Your task to perform on an android device: open app "Roku - Official Remote Control" (install if not already installed) Image 0: 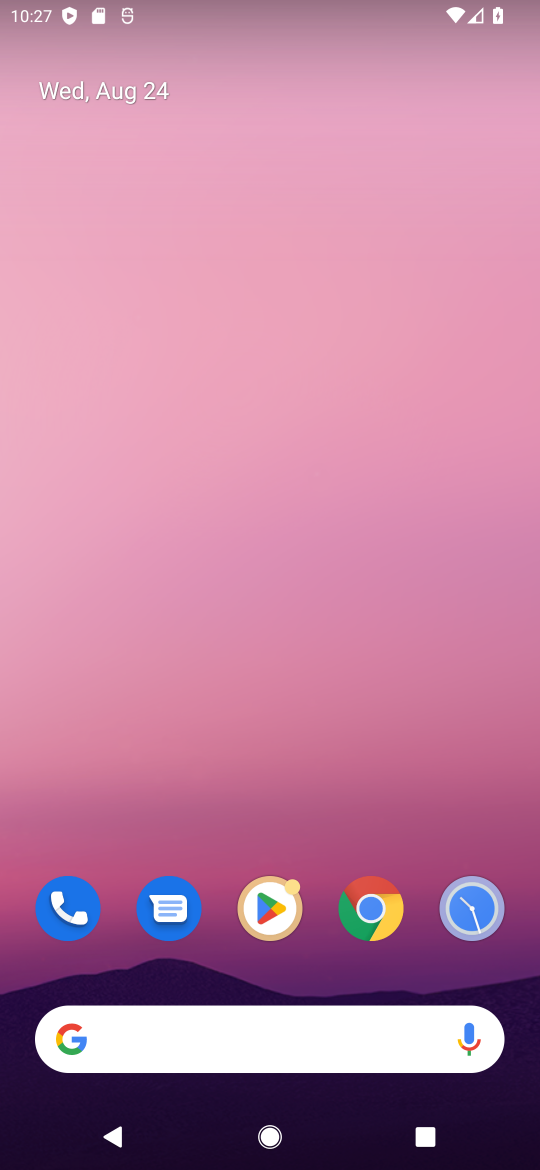
Step 0: click (263, 895)
Your task to perform on an android device: open app "Roku - Official Remote Control" (install if not already installed) Image 1: 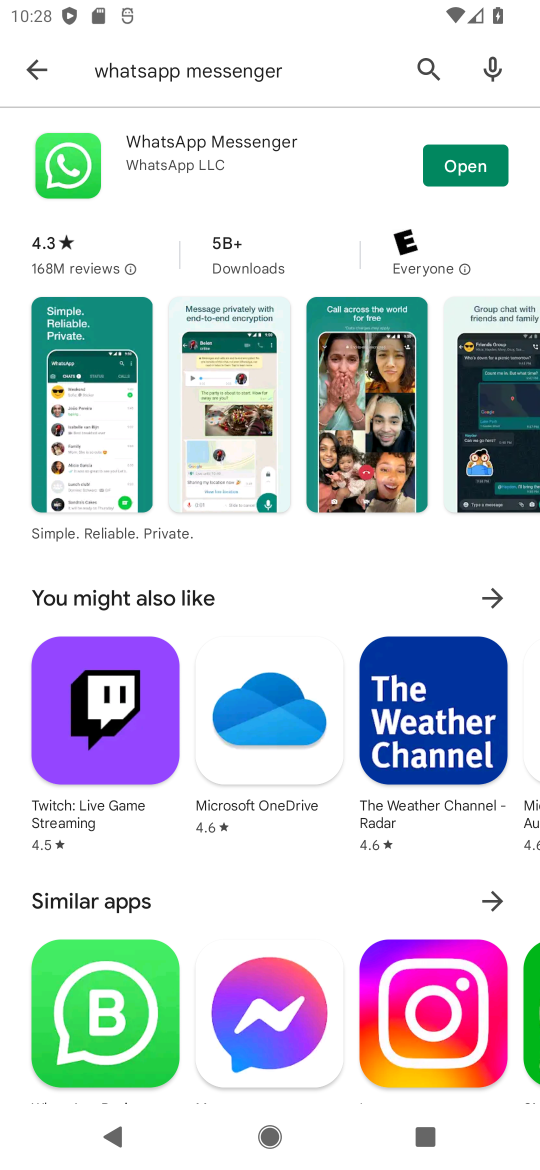
Step 1: click (296, 895)
Your task to perform on an android device: open app "Roku - Official Remote Control" (install if not already installed) Image 2: 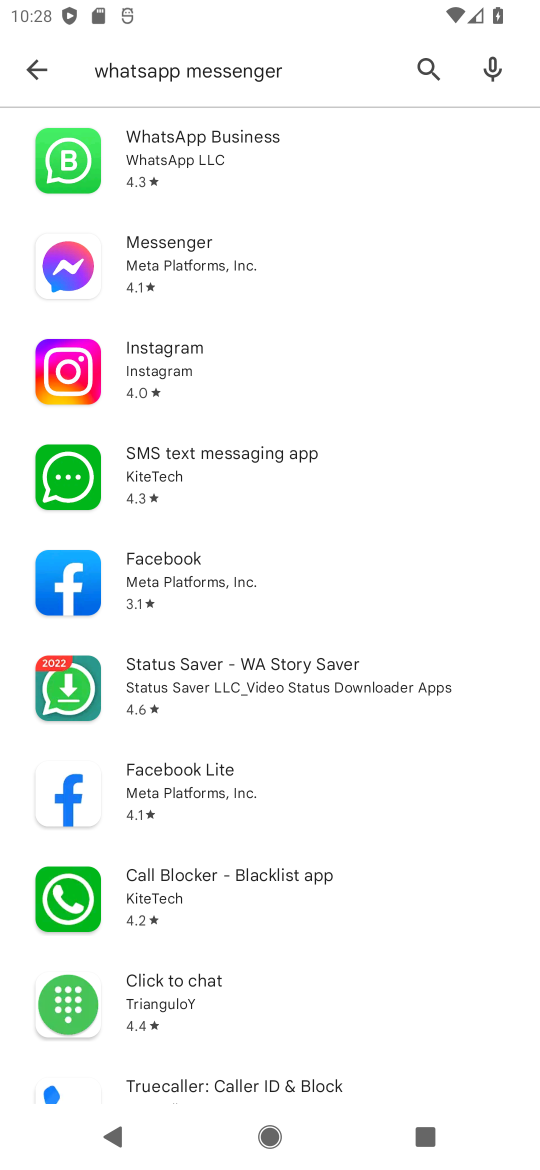
Step 2: click (23, 57)
Your task to perform on an android device: open app "Roku - Official Remote Control" (install if not already installed) Image 3: 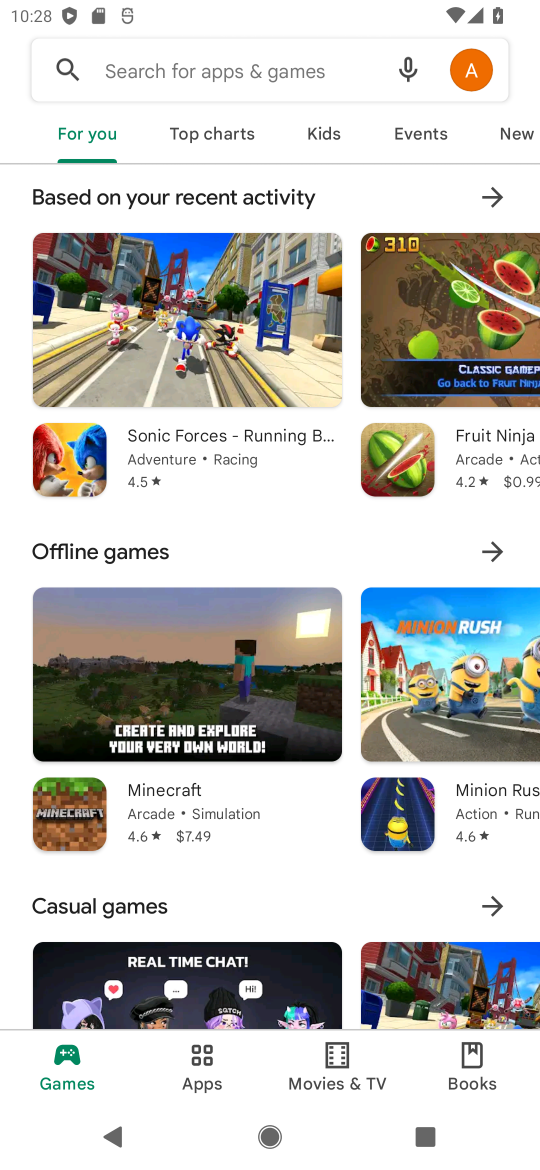
Step 3: click (212, 59)
Your task to perform on an android device: open app "Roku - Official Remote Control" (install if not already installed) Image 4: 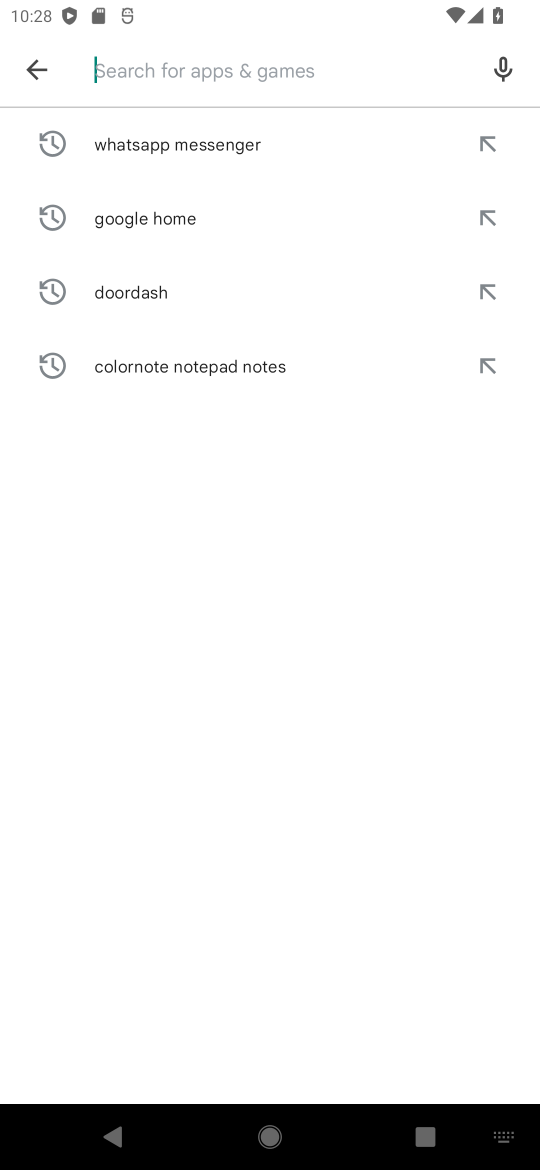
Step 4: click (44, 1167)
Your task to perform on an android device: open app "Roku - Official Remote Control" (install if not already installed) Image 5: 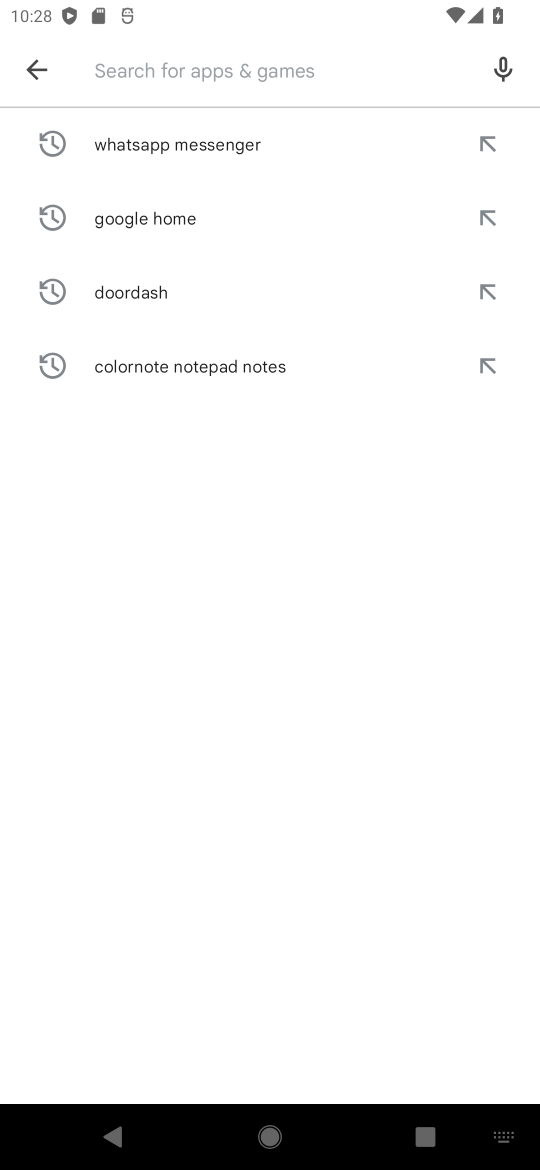
Step 5: type "Roku"
Your task to perform on an android device: open app "Roku - Official Remote Control" (install if not already installed) Image 6: 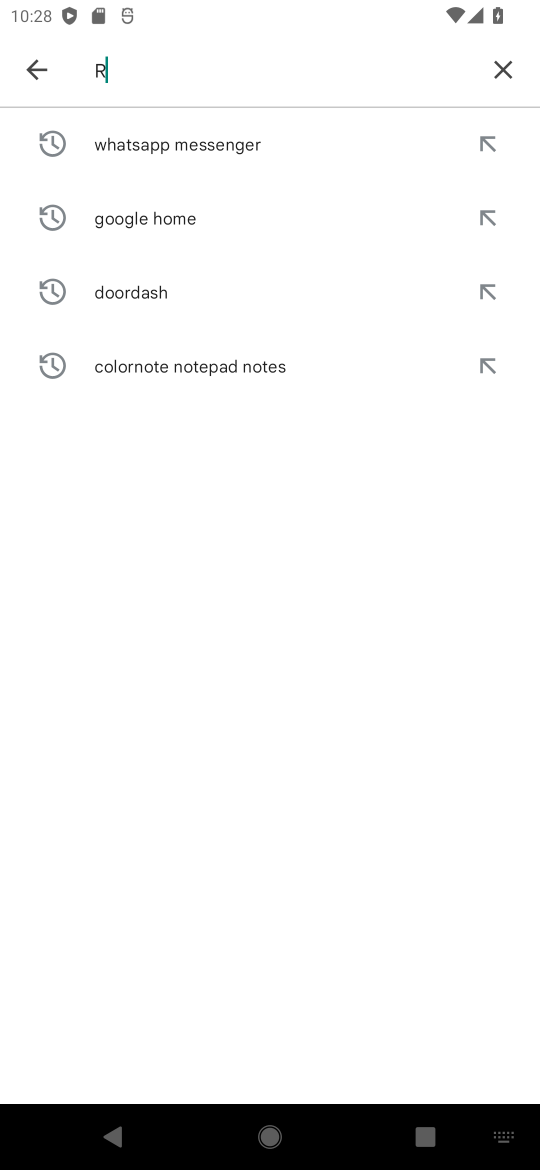
Step 6: drag from (44, 1167) to (514, 555)
Your task to perform on an android device: open app "Roku - Official Remote Control" (install if not already installed) Image 7: 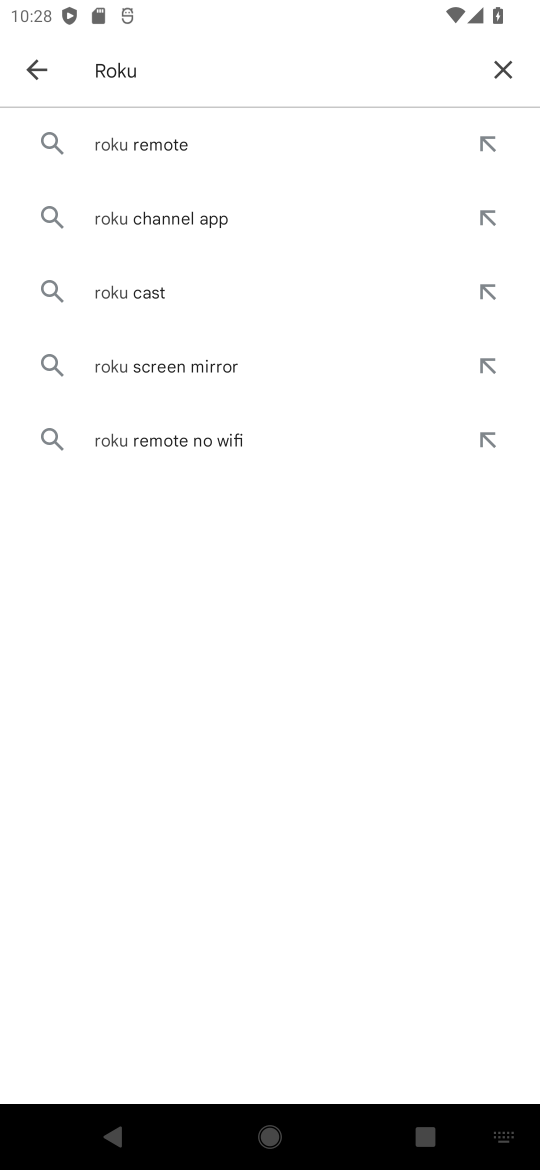
Step 7: click (134, 161)
Your task to perform on an android device: open app "Roku - Official Remote Control" (install if not already installed) Image 8: 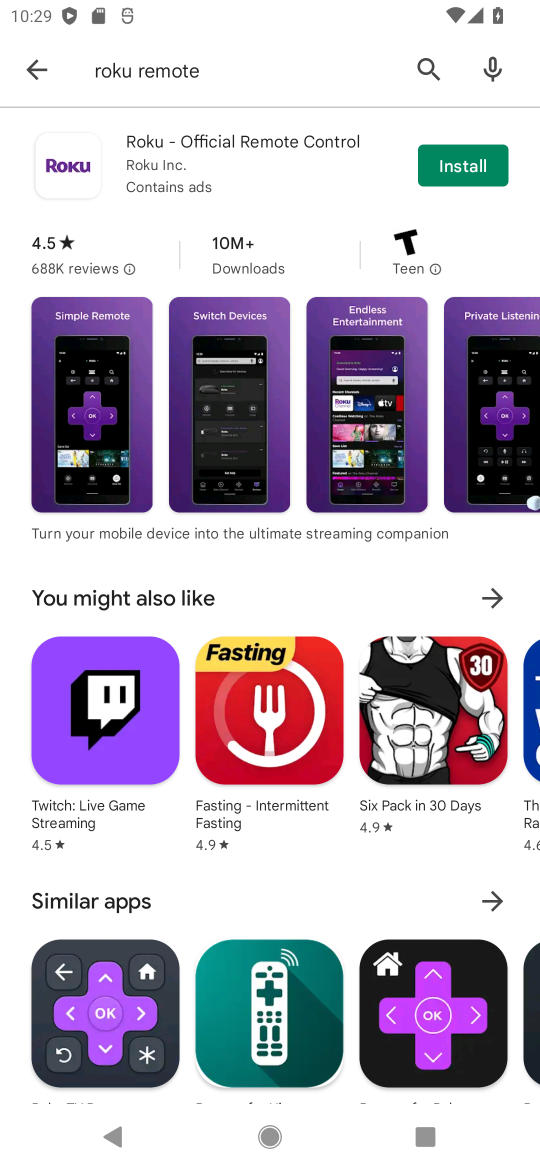
Step 8: click (453, 181)
Your task to perform on an android device: open app "Roku - Official Remote Control" (install if not already installed) Image 9: 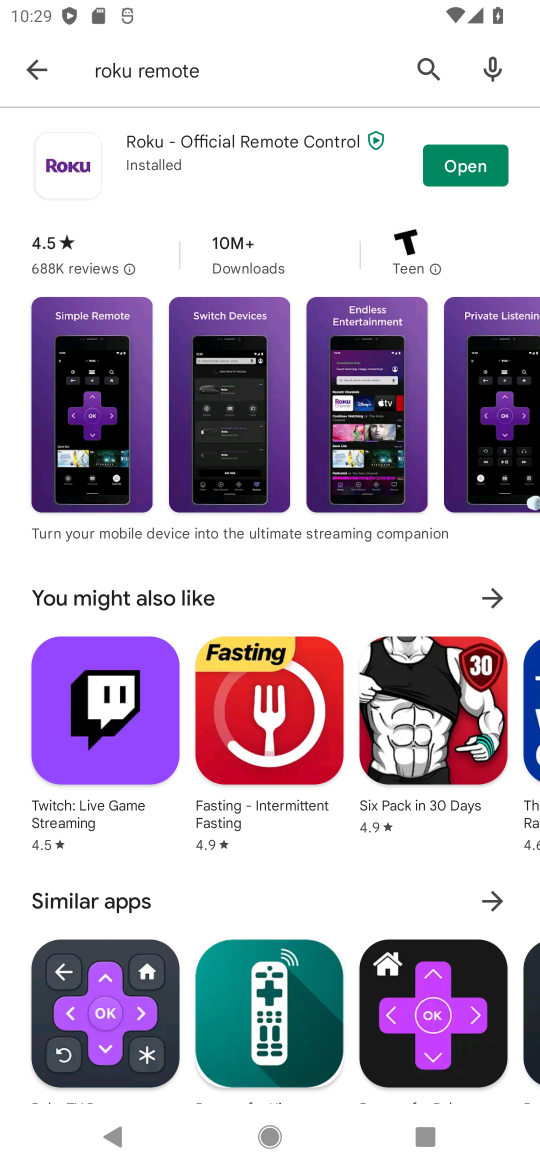
Step 9: click (483, 158)
Your task to perform on an android device: open app "Roku - Official Remote Control" (install if not already installed) Image 10: 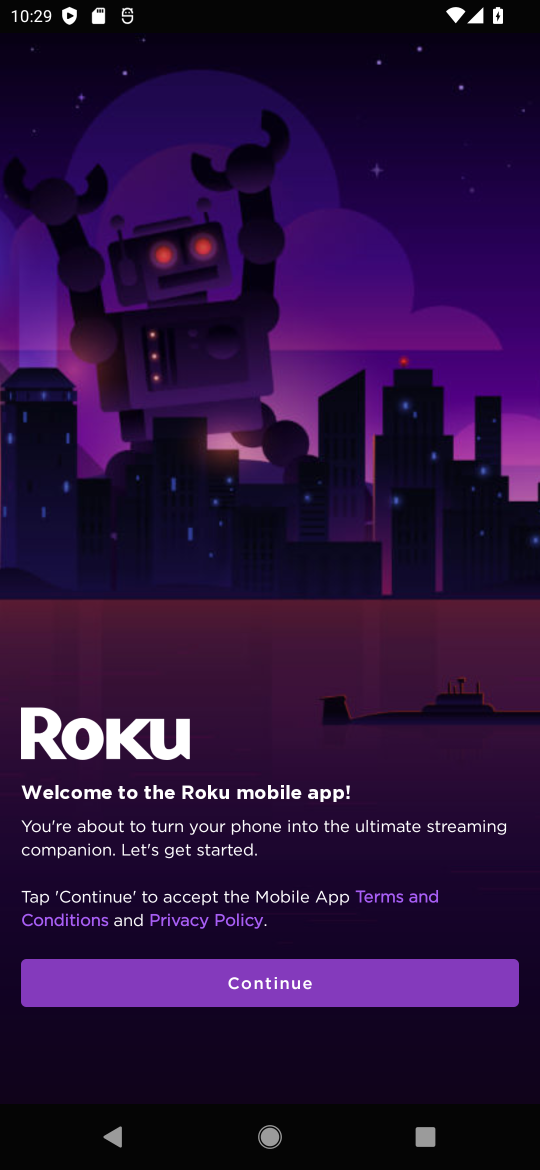
Step 10: task complete